Your task to perform on an android device: Show me the alarms in the clock app Image 0: 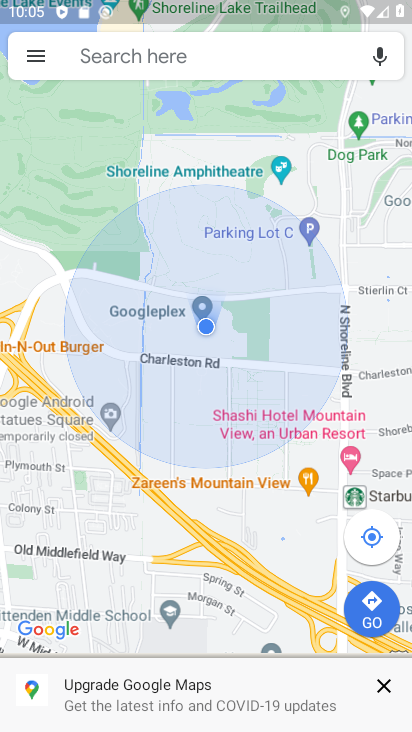
Step 0: press home button
Your task to perform on an android device: Show me the alarms in the clock app Image 1: 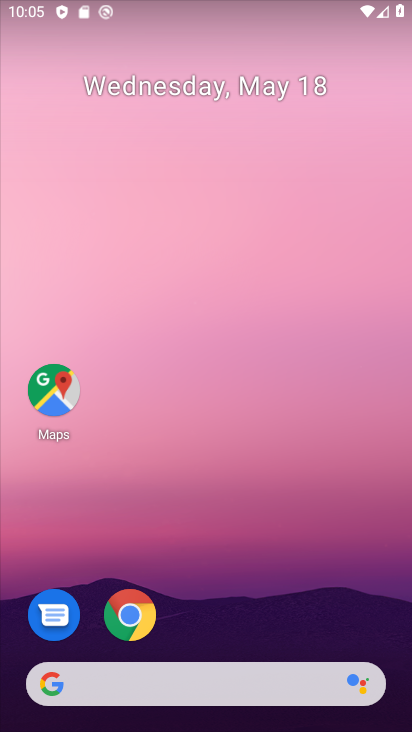
Step 1: drag from (222, 625) to (204, 13)
Your task to perform on an android device: Show me the alarms in the clock app Image 2: 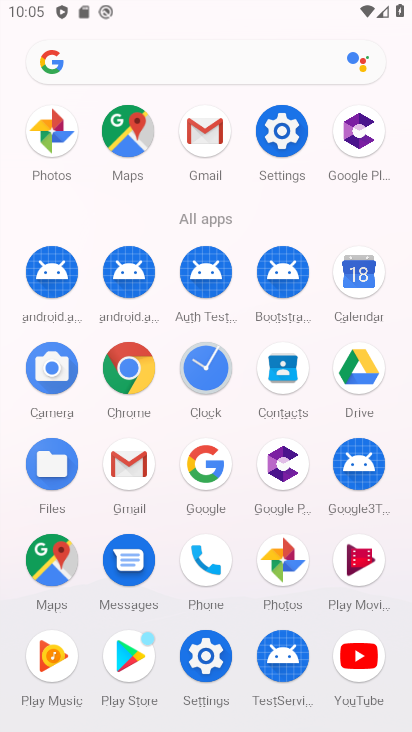
Step 2: click (220, 374)
Your task to perform on an android device: Show me the alarms in the clock app Image 3: 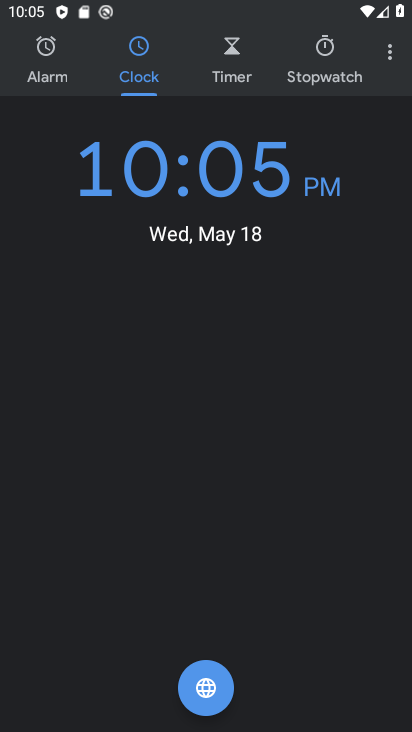
Step 3: click (47, 74)
Your task to perform on an android device: Show me the alarms in the clock app Image 4: 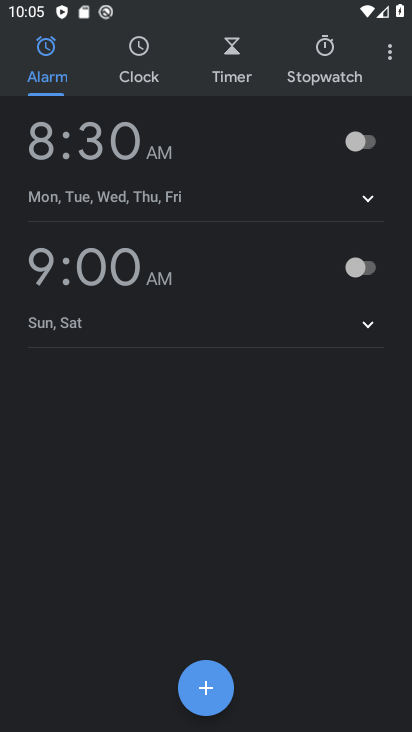
Step 4: task complete